Your task to perform on an android device: clear history in the chrome app Image 0: 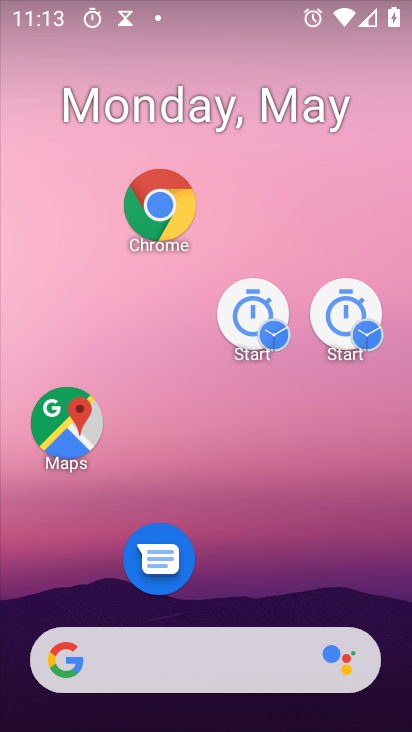
Step 0: drag from (247, 690) to (103, 163)
Your task to perform on an android device: clear history in the chrome app Image 1: 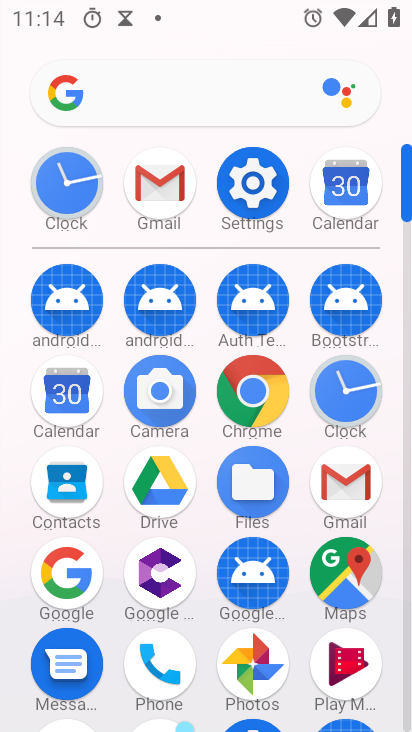
Step 1: click (257, 375)
Your task to perform on an android device: clear history in the chrome app Image 2: 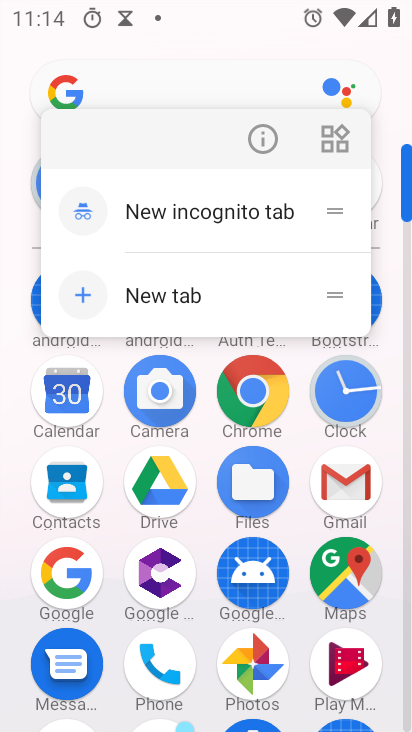
Step 2: click (183, 286)
Your task to perform on an android device: clear history in the chrome app Image 3: 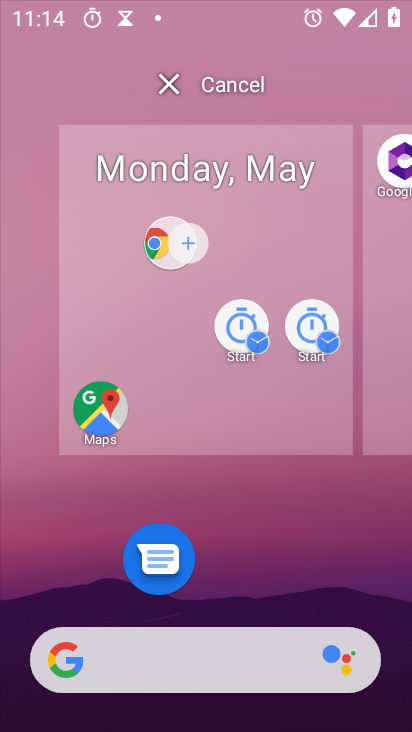
Step 3: drag from (274, 584) to (194, 109)
Your task to perform on an android device: clear history in the chrome app Image 4: 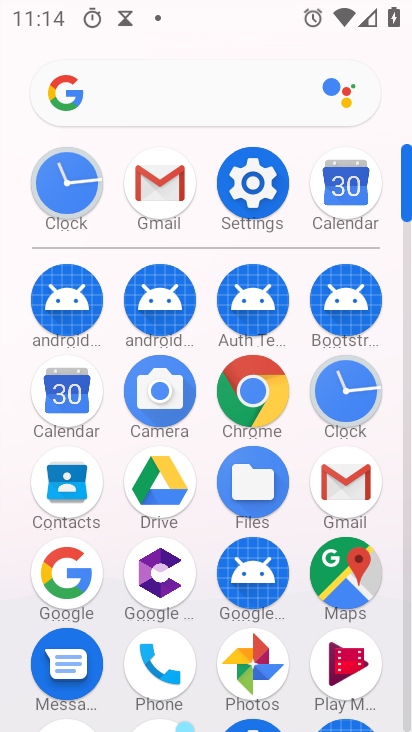
Step 4: click (346, 560)
Your task to perform on an android device: clear history in the chrome app Image 5: 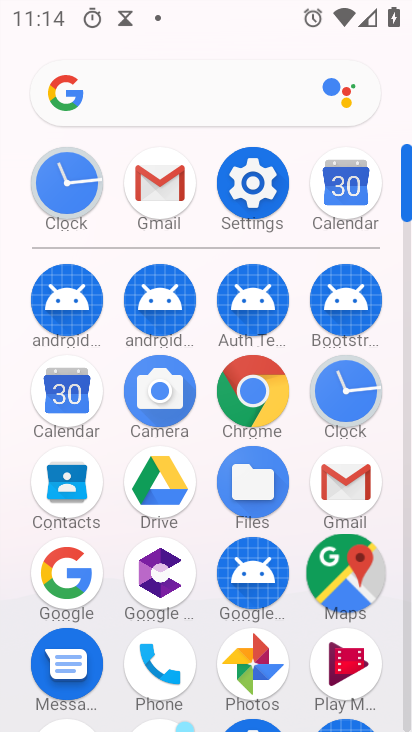
Step 5: click (346, 560)
Your task to perform on an android device: clear history in the chrome app Image 6: 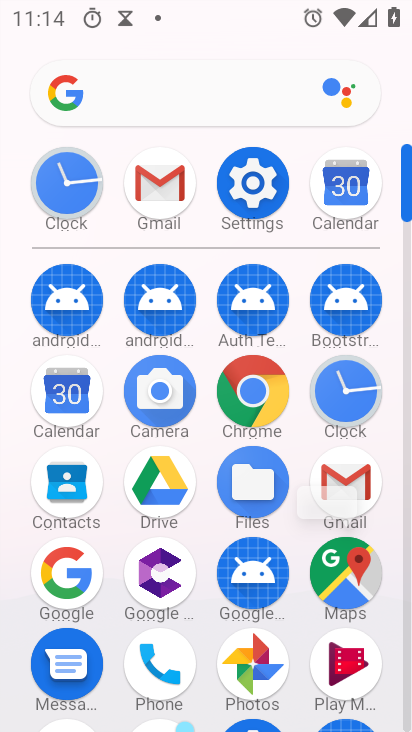
Step 6: click (346, 561)
Your task to perform on an android device: clear history in the chrome app Image 7: 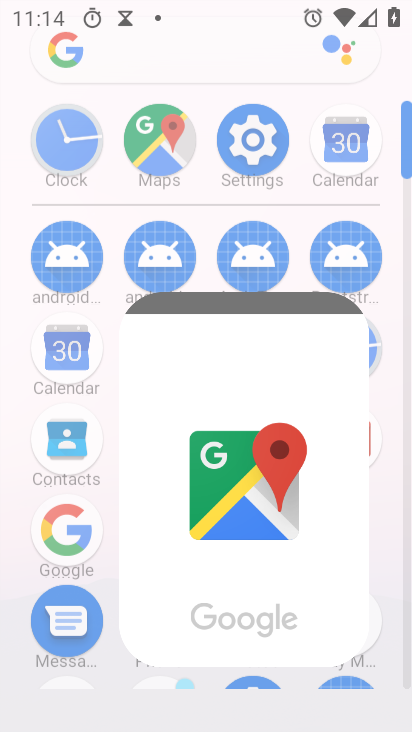
Step 7: click (346, 568)
Your task to perform on an android device: clear history in the chrome app Image 8: 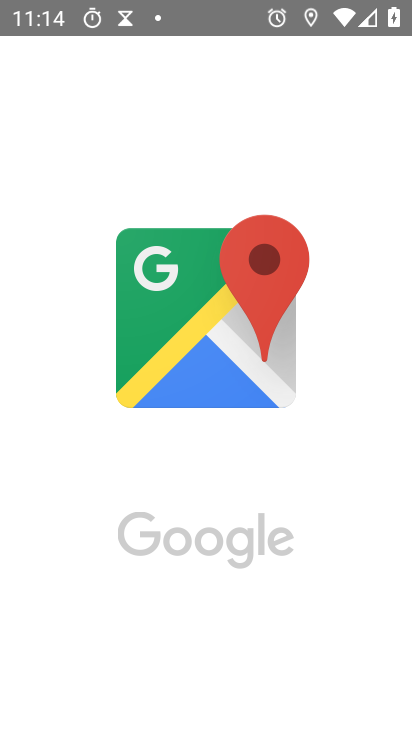
Step 8: click (350, 580)
Your task to perform on an android device: clear history in the chrome app Image 9: 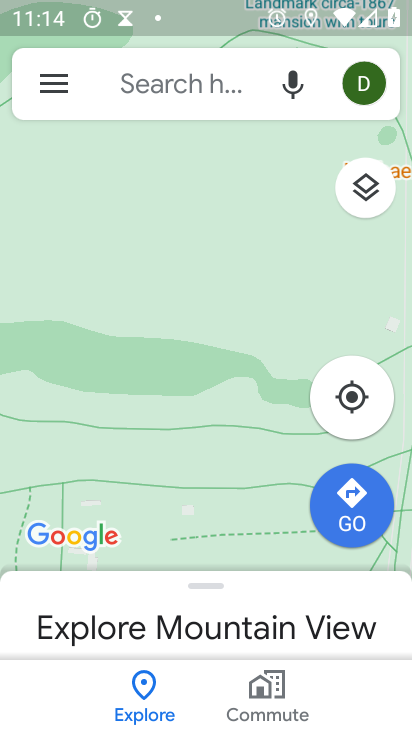
Step 9: press back button
Your task to perform on an android device: clear history in the chrome app Image 10: 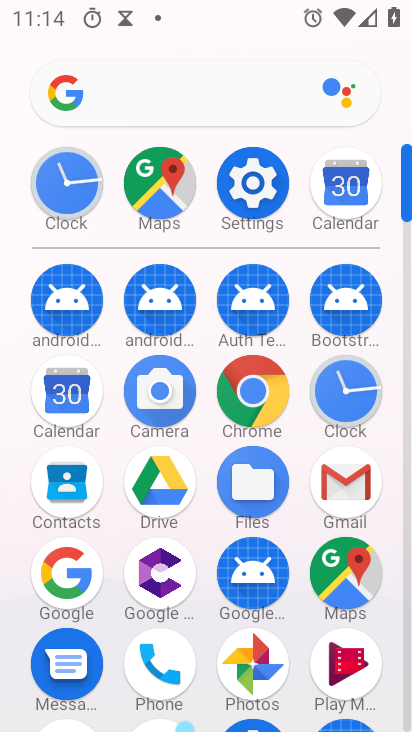
Step 10: click (259, 392)
Your task to perform on an android device: clear history in the chrome app Image 11: 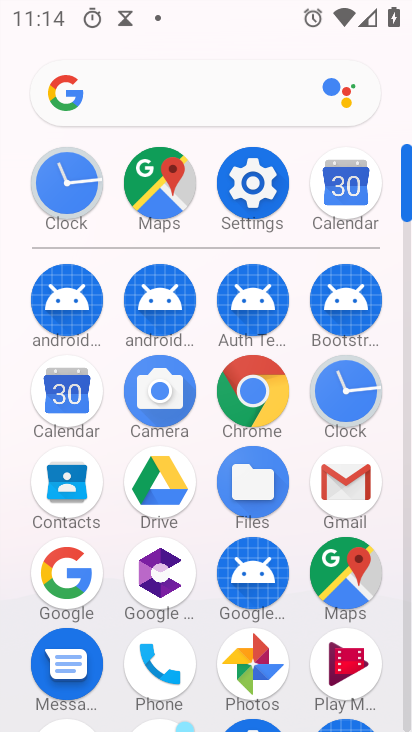
Step 11: click (260, 393)
Your task to perform on an android device: clear history in the chrome app Image 12: 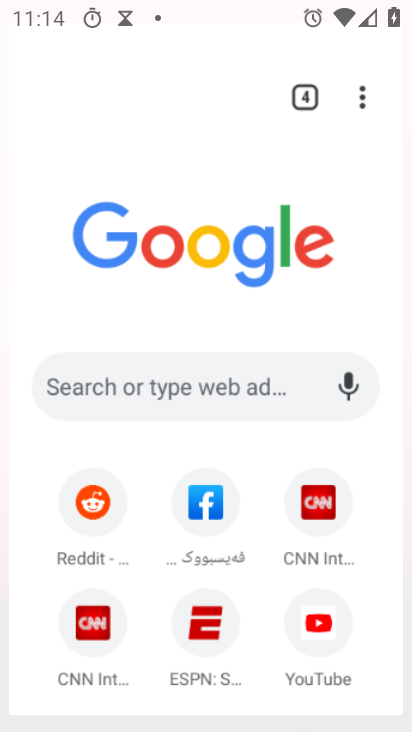
Step 12: click (263, 396)
Your task to perform on an android device: clear history in the chrome app Image 13: 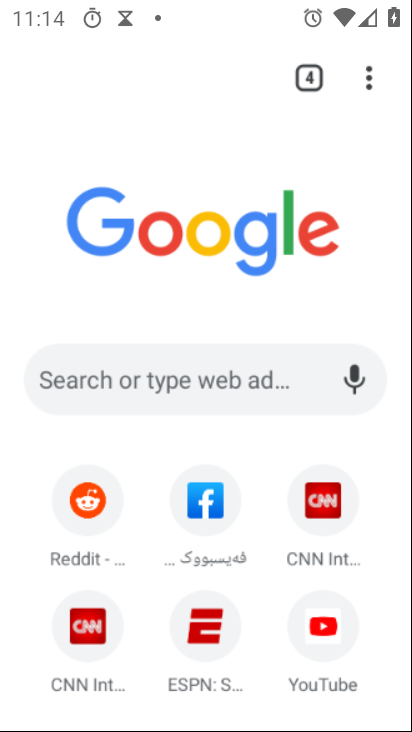
Step 13: click (262, 392)
Your task to perform on an android device: clear history in the chrome app Image 14: 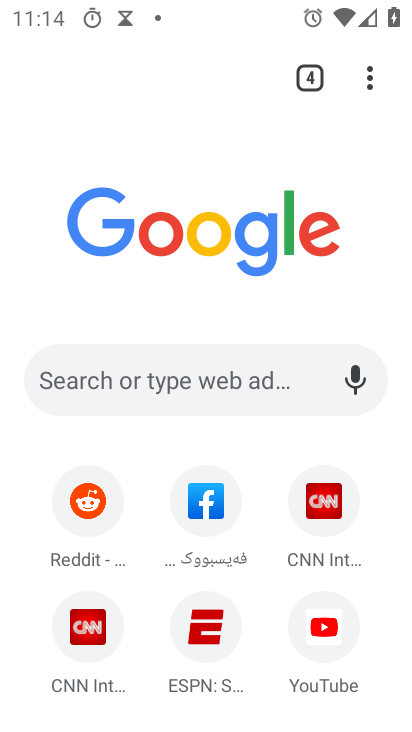
Step 14: click (363, 97)
Your task to perform on an android device: clear history in the chrome app Image 15: 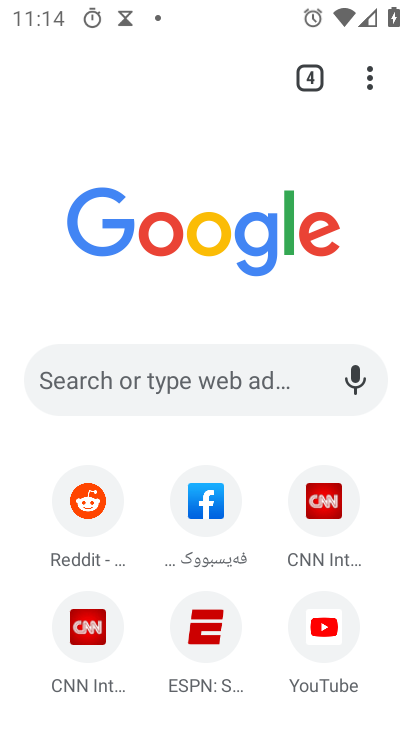
Step 15: drag from (368, 77) to (90, 450)
Your task to perform on an android device: clear history in the chrome app Image 16: 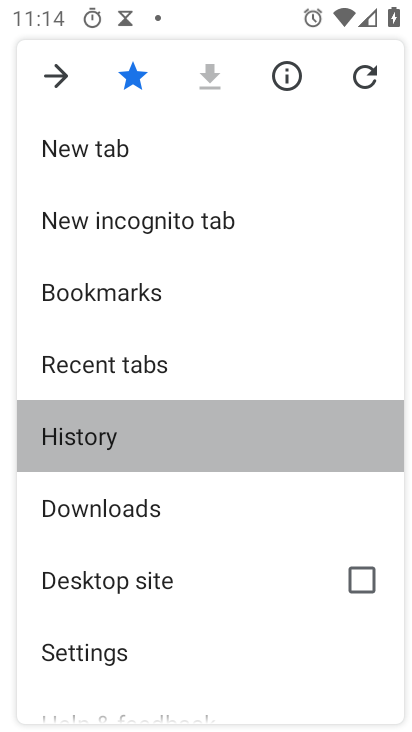
Step 16: click (91, 437)
Your task to perform on an android device: clear history in the chrome app Image 17: 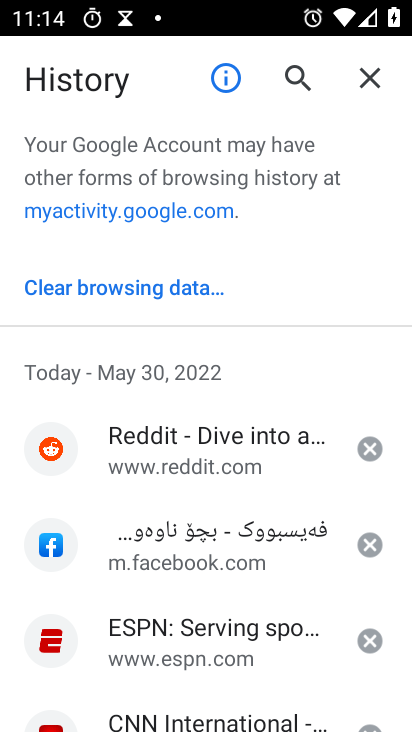
Step 17: click (167, 285)
Your task to perform on an android device: clear history in the chrome app Image 18: 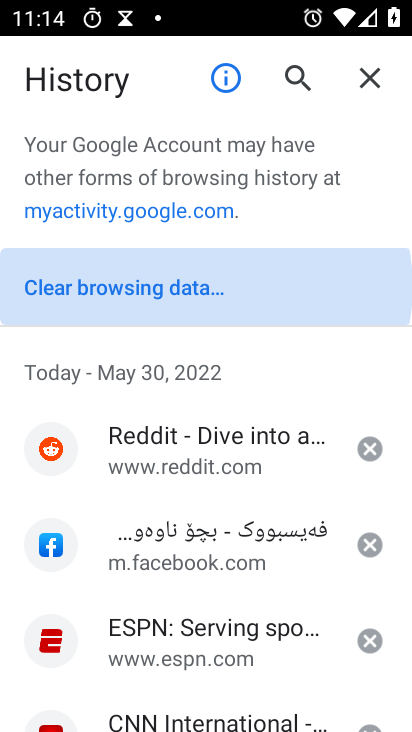
Step 18: click (168, 281)
Your task to perform on an android device: clear history in the chrome app Image 19: 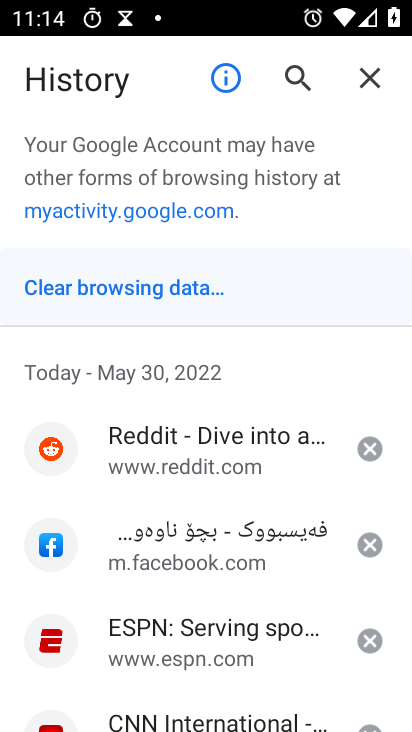
Step 19: click (168, 281)
Your task to perform on an android device: clear history in the chrome app Image 20: 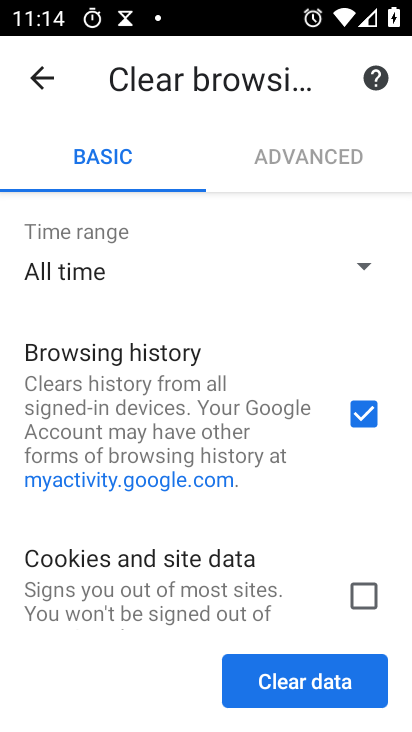
Step 20: click (318, 681)
Your task to perform on an android device: clear history in the chrome app Image 21: 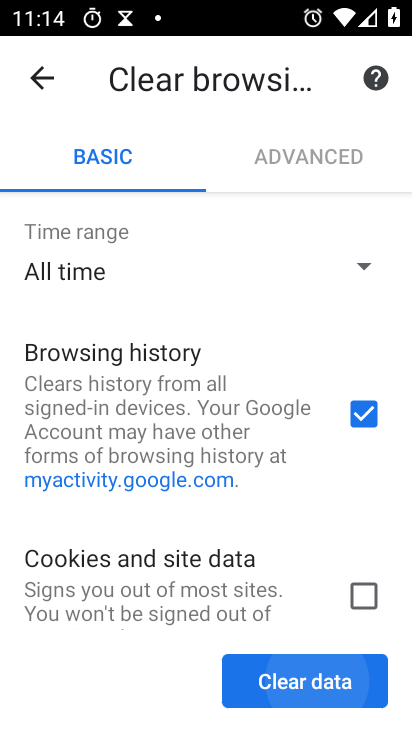
Step 21: click (316, 673)
Your task to perform on an android device: clear history in the chrome app Image 22: 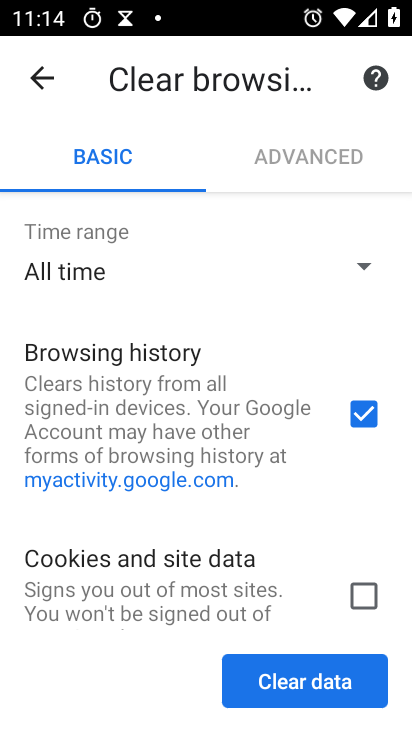
Step 22: click (318, 673)
Your task to perform on an android device: clear history in the chrome app Image 23: 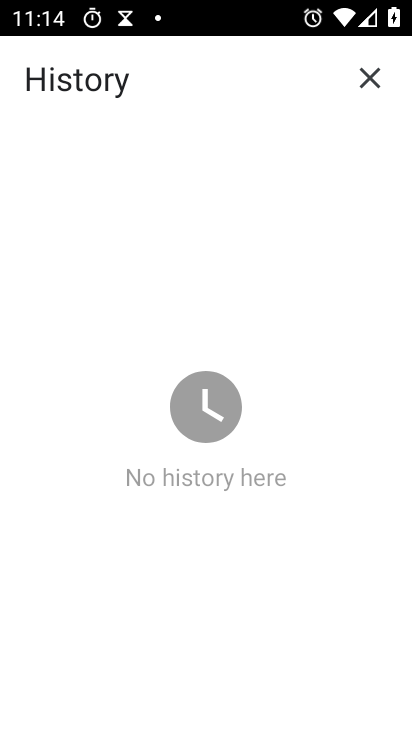
Step 23: click (300, 679)
Your task to perform on an android device: clear history in the chrome app Image 24: 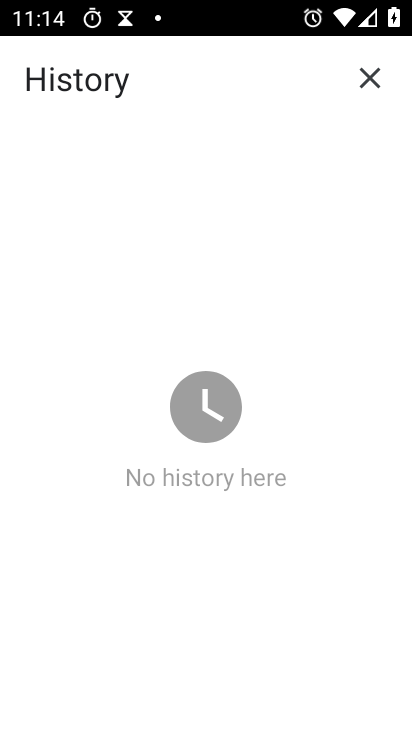
Step 24: task complete